Your task to perform on an android device: allow notifications from all sites in the chrome app Image 0: 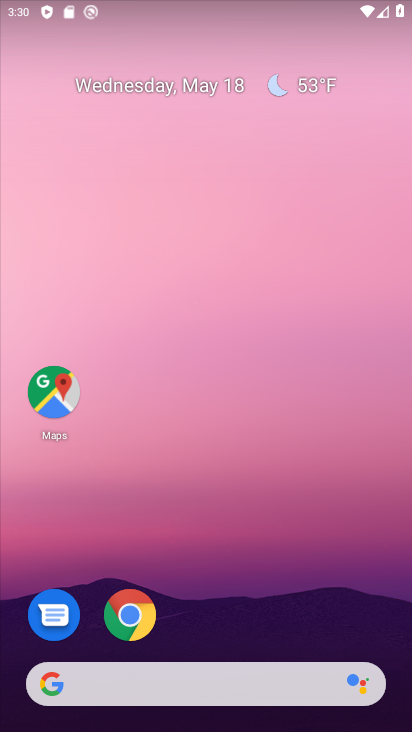
Step 0: click (125, 616)
Your task to perform on an android device: allow notifications from all sites in the chrome app Image 1: 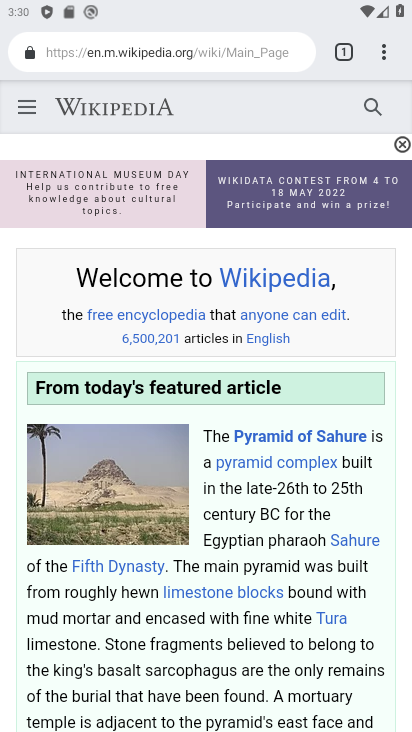
Step 1: drag from (384, 46) to (220, 629)
Your task to perform on an android device: allow notifications from all sites in the chrome app Image 2: 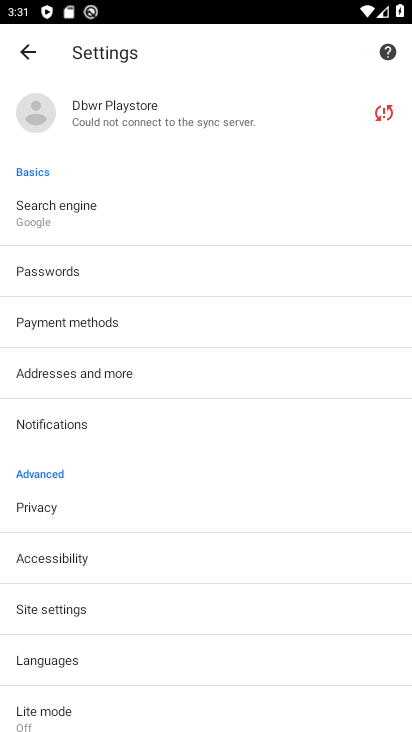
Step 2: click (76, 422)
Your task to perform on an android device: allow notifications from all sites in the chrome app Image 3: 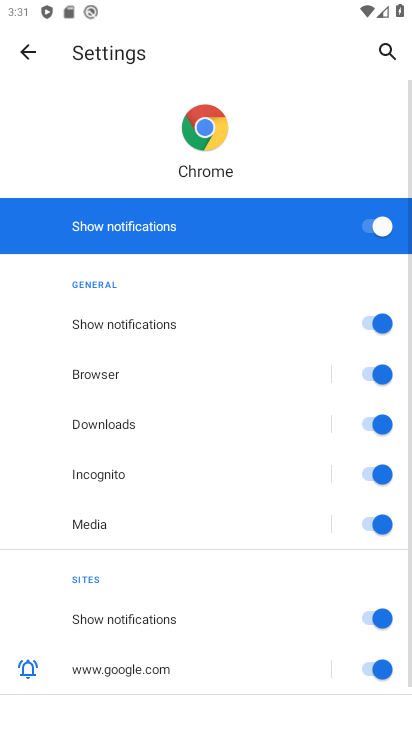
Step 3: task complete